Your task to perform on an android device: turn off data saver in the chrome app Image 0: 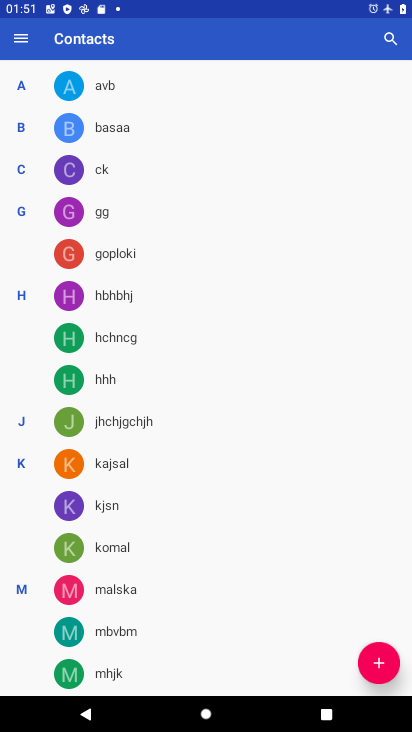
Step 0: press home button
Your task to perform on an android device: turn off data saver in the chrome app Image 1: 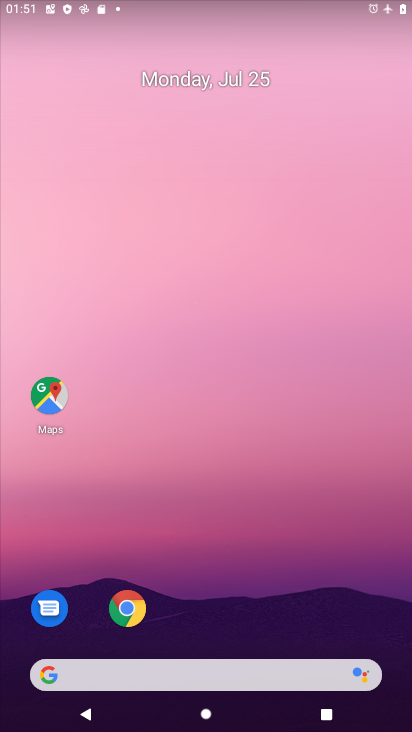
Step 1: drag from (211, 648) to (152, 25)
Your task to perform on an android device: turn off data saver in the chrome app Image 2: 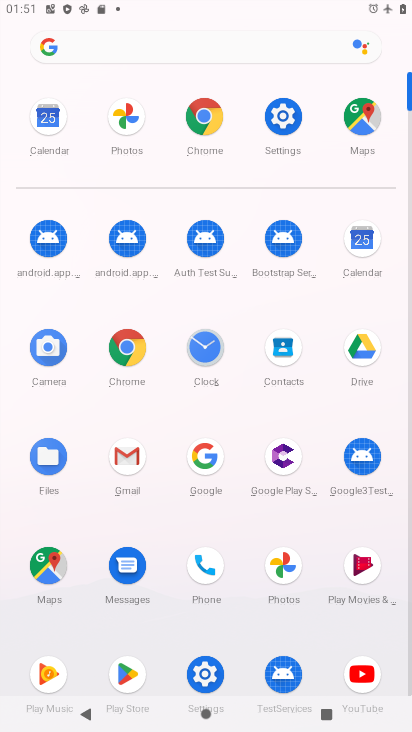
Step 2: click (201, 119)
Your task to perform on an android device: turn off data saver in the chrome app Image 3: 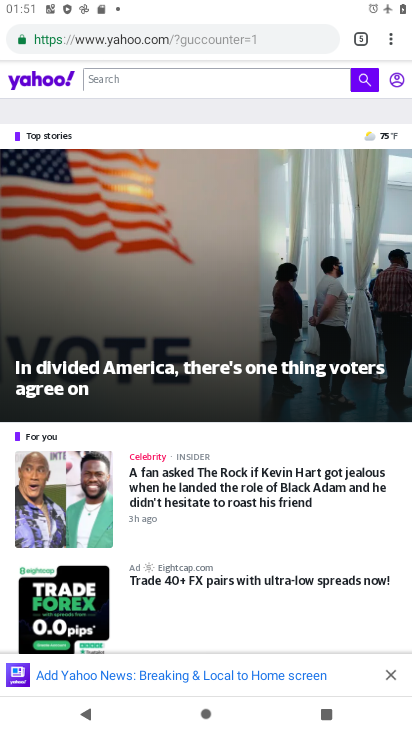
Step 3: drag from (394, 43) to (268, 428)
Your task to perform on an android device: turn off data saver in the chrome app Image 4: 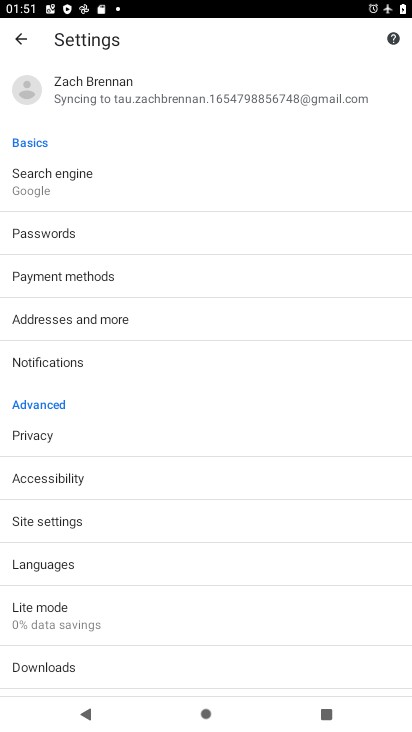
Step 4: click (23, 627)
Your task to perform on an android device: turn off data saver in the chrome app Image 5: 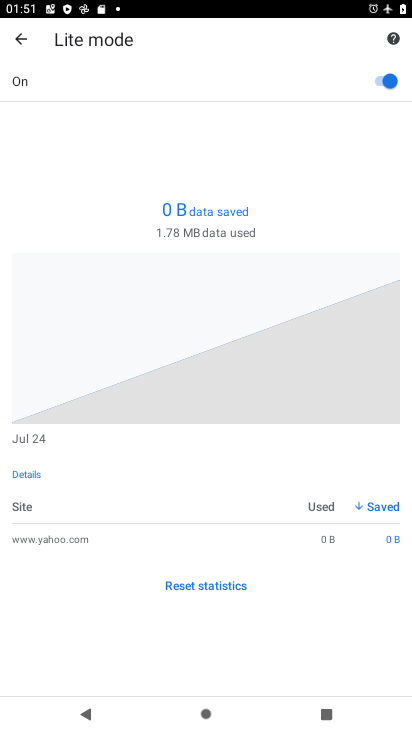
Step 5: click (388, 81)
Your task to perform on an android device: turn off data saver in the chrome app Image 6: 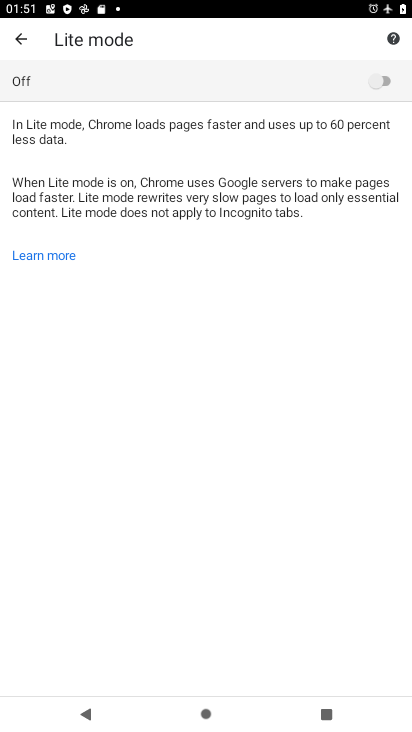
Step 6: task complete